Your task to perform on an android device: delete the emails in spam in the gmail app Image 0: 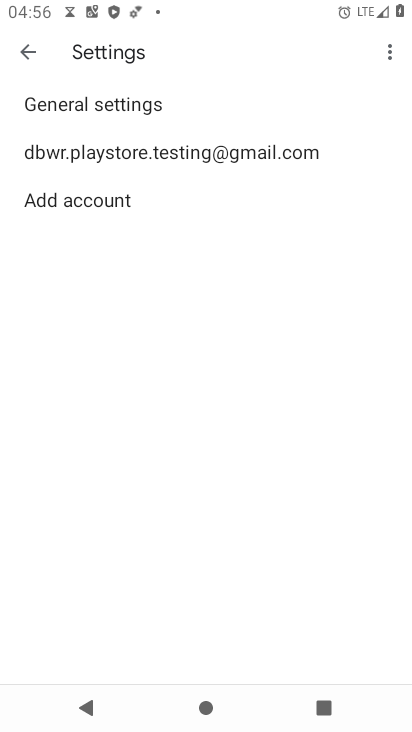
Step 0: press back button
Your task to perform on an android device: delete the emails in spam in the gmail app Image 1: 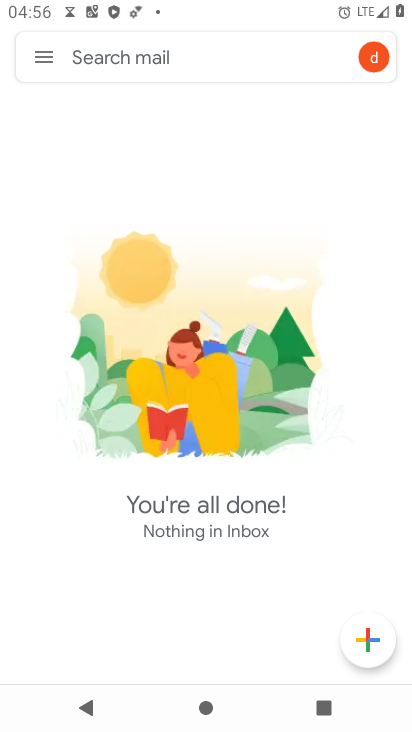
Step 1: press back button
Your task to perform on an android device: delete the emails in spam in the gmail app Image 2: 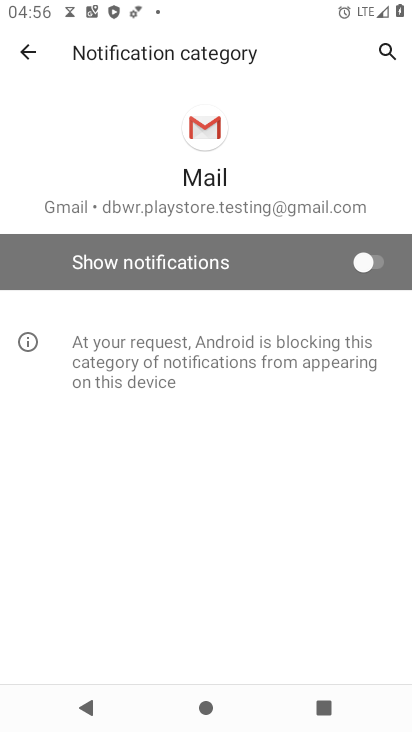
Step 2: press back button
Your task to perform on an android device: delete the emails in spam in the gmail app Image 3: 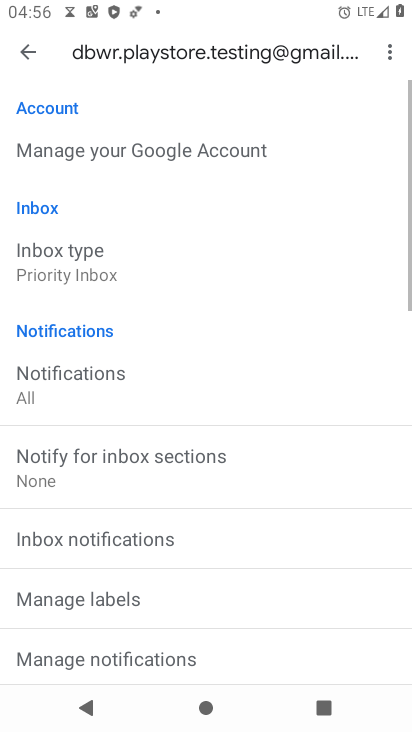
Step 3: press back button
Your task to perform on an android device: delete the emails in spam in the gmail app Image 4: 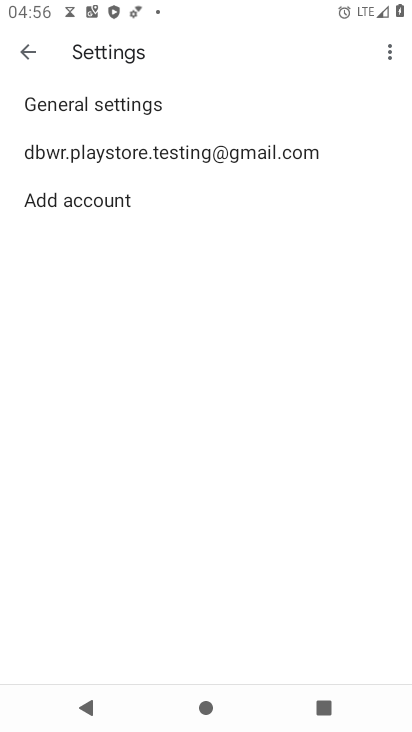
Step 4: press back button
Your task to perform on an android device: delete the emails in spam in the gmail app Image 5: 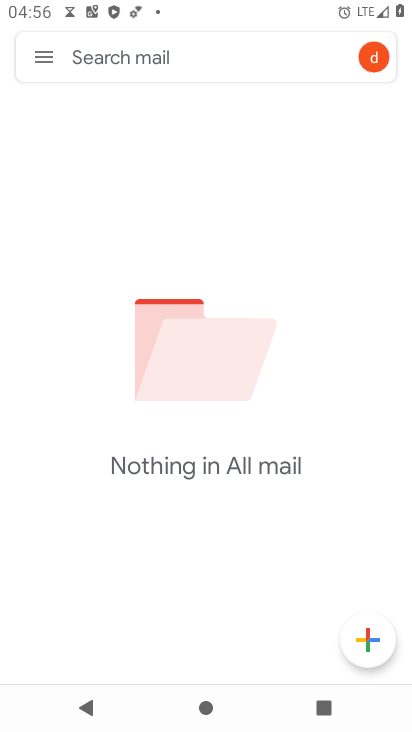
Step 5: press back button
Your task to perform on an android device: delete the emails in spam in the gmail app Image 6: 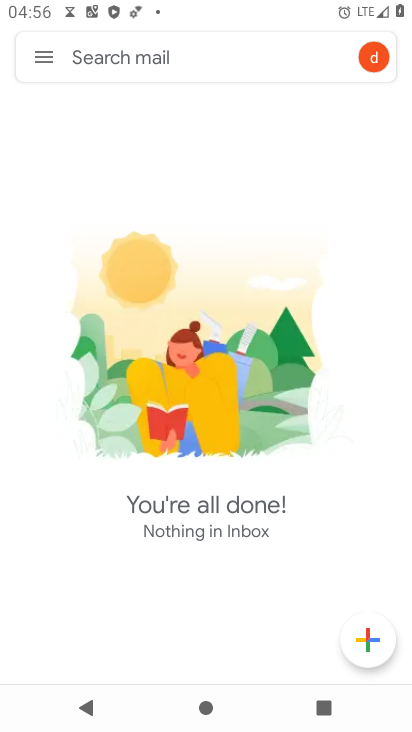
Step 6: press back button
Your task to perform on an android device: delete the emails in spam in the gmail app Image 7: 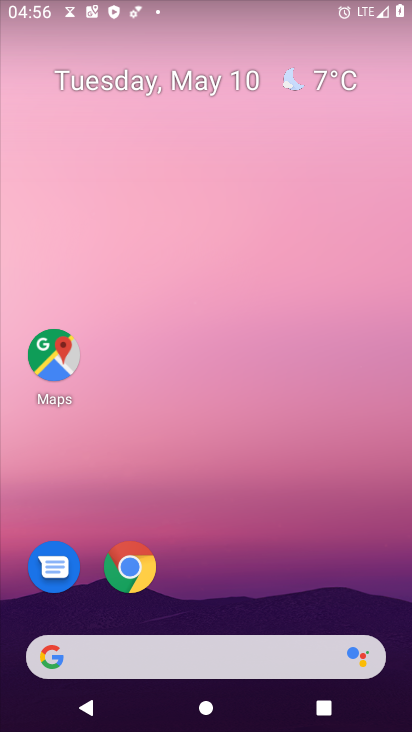
Step 7: drag from (260, 523) to (169, 140)
Your task to perform on an android device: delete the emails in spam in the gmail app Image 8: 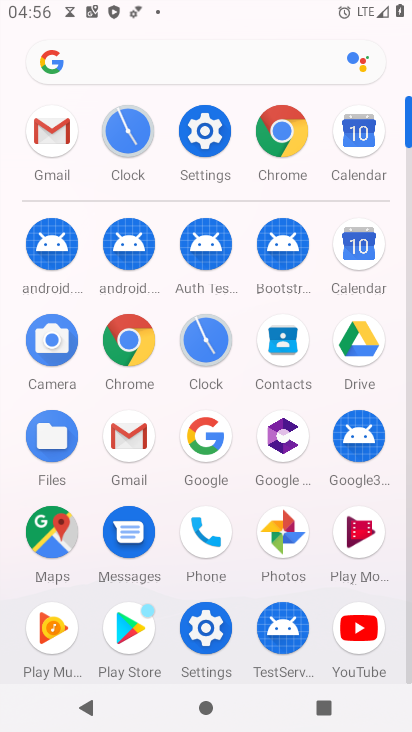
Step 8: click (51, 131)
Your task to perform on an android device: delete the emails in spam in the gmail app Image 9: 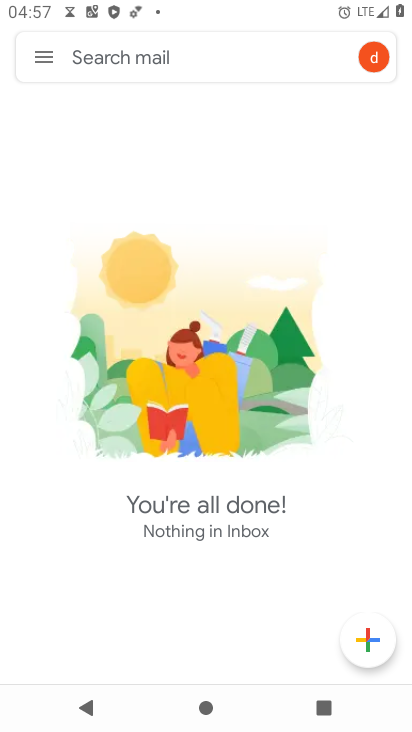
Step 9: click (48, 55)
Your task to perform on an android device: delete the emails in spam in the gmail app Image 10: 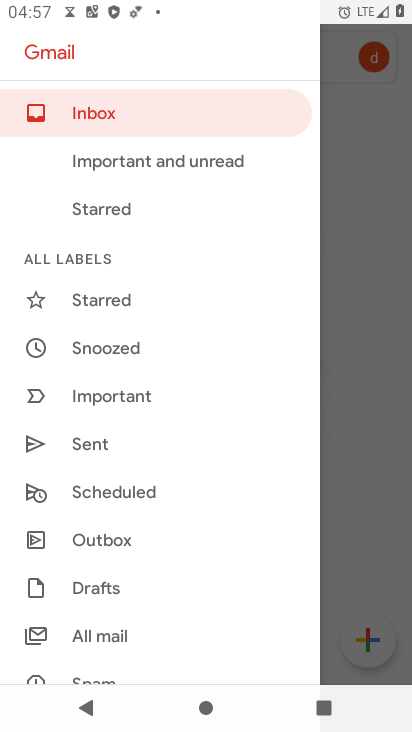
Step 10: drag from (120, 469) to (140, 327)
Your task to perform on an android device: delete the emails in spam in the gmail app Image 11: 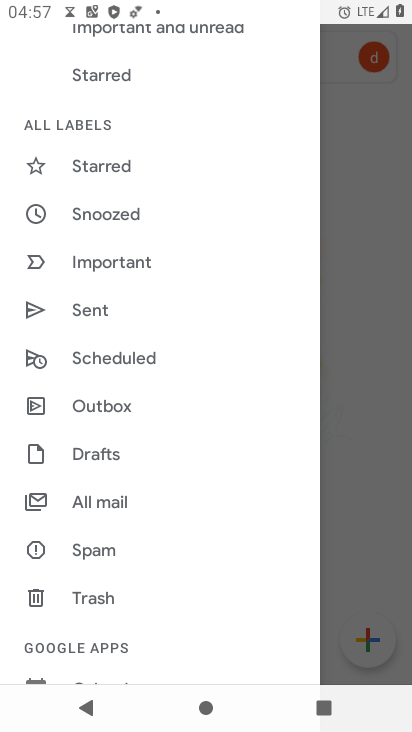
Step 11: click (88, 545)
Your task to perform on an android device: delete the emails in spam in the gmail app Image 12: 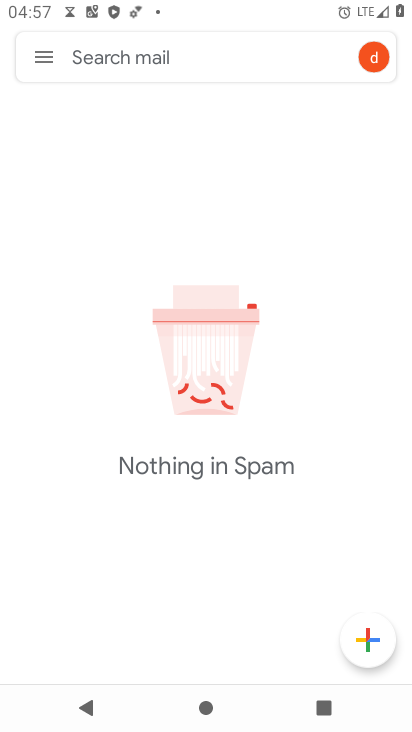
Step 12: task complete